Your task to perform on an android device: see tabs open on other devices in the chrome app Image 0: 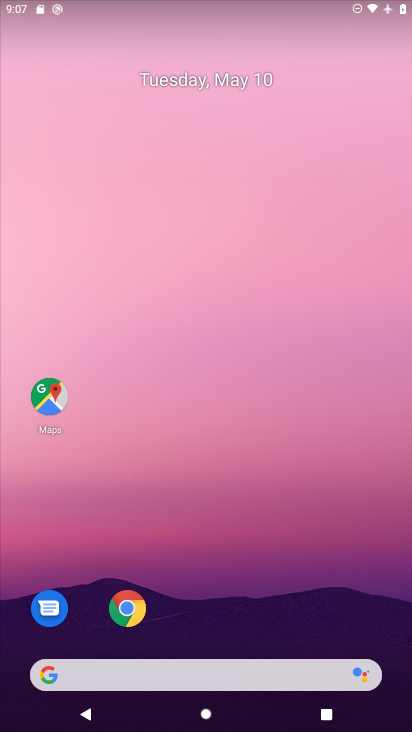
Step 0: drag from (240, 599) to (267, 236)
Your task to perform on an android device: see tabs open on other devices in the chrome app Image 1: 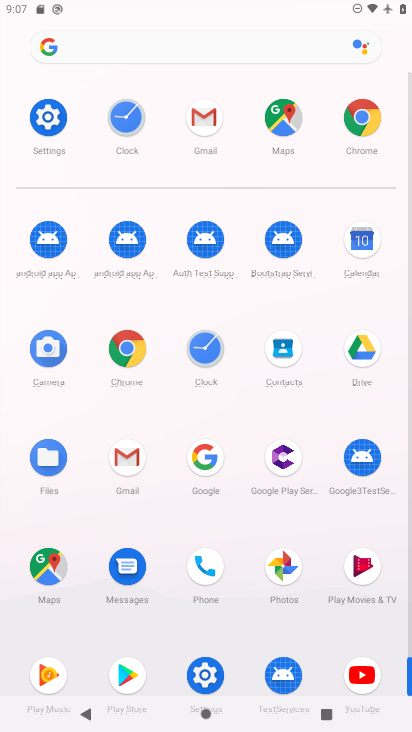
Step 1: click (350, 120)
Your task to perform on an android device: see tabs open on other devices in the chrome app Image 2: 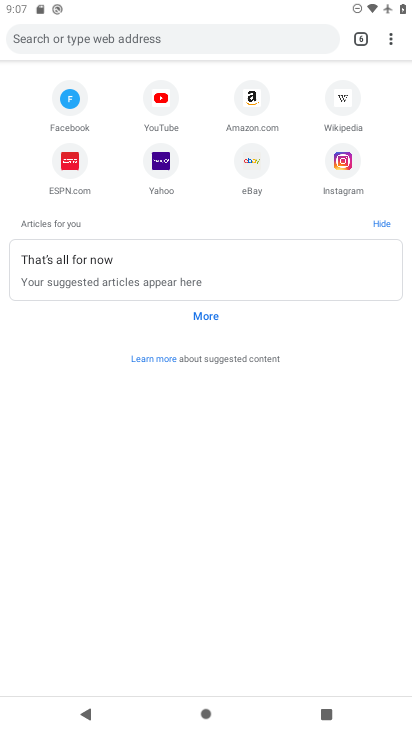
Step 2: click (382, 34)
Your task to perform on an android device: see tabs open on other devices in the chrome app Image 3: 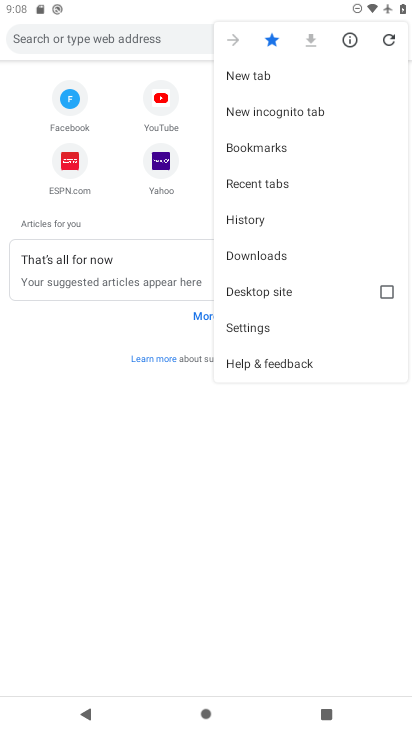
Step 3: click (257, 222)
Your task to perform on an android device: see tabs open on other devices in the chrome app Image 4: 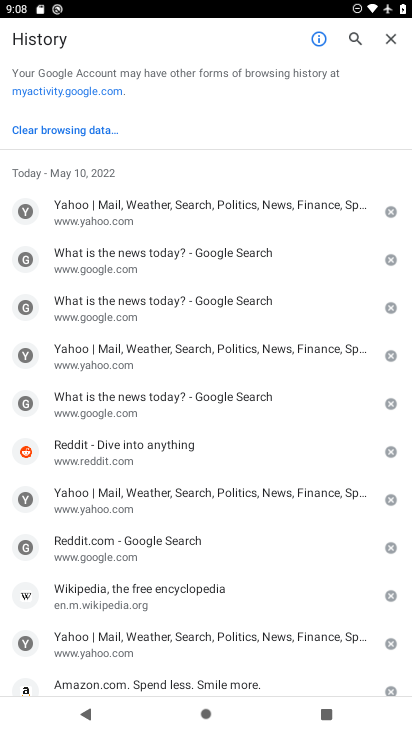
Step 4: task complete